Your task to perform on an android device: Open settings Image 0: 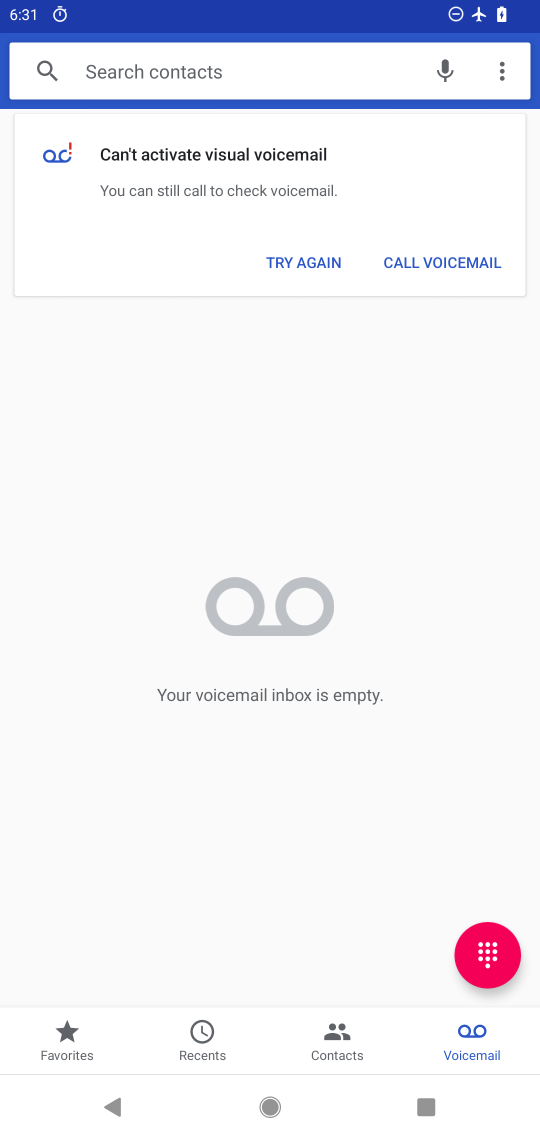
Step 0: press home button
Your task to perform on an android device: Open settings Image 1: 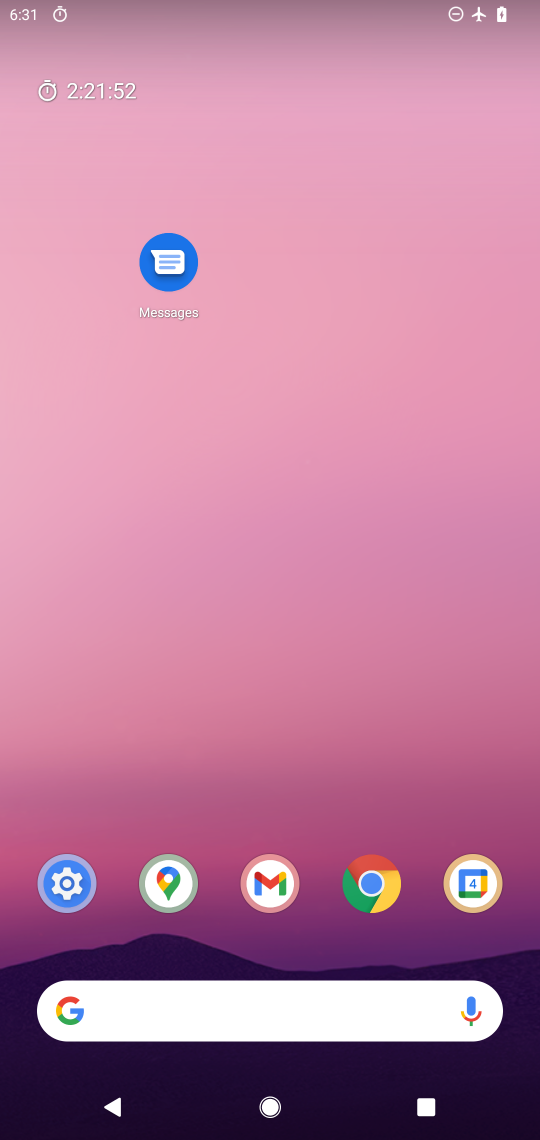
Step 1: drag from (323, 931) to (380, 178)
Your task to perform on an android device: Open settings Image 2: 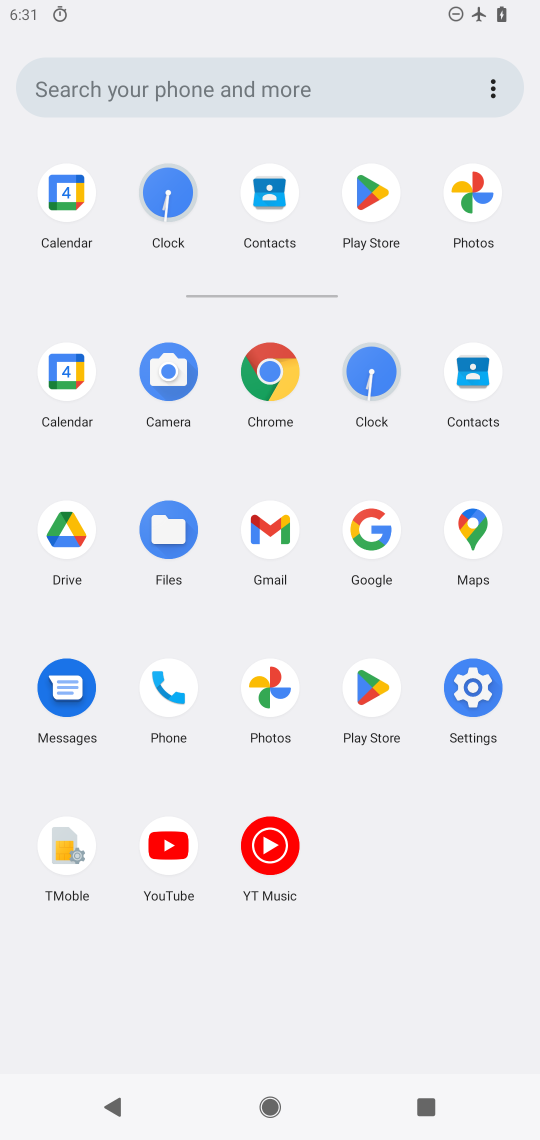
Step 2: click (481, 677)
Your task to perform on an android device: Open settings Image 3: 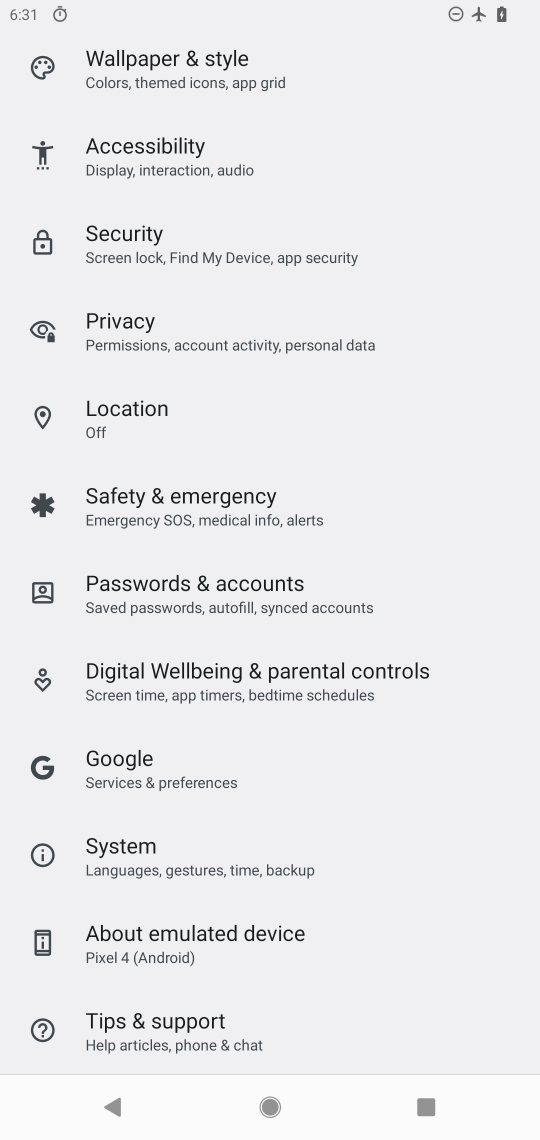
Step 3: task complete